Your task to perform on an android device: Search for Italian restaurants on Maps Image 0: 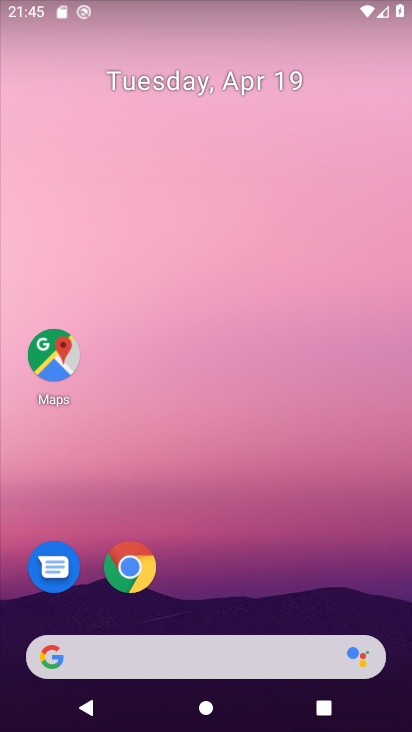
Step 0: drag from (222, 589) to (271, 27)
Your task to perform on an android device: Search for Italian restaurants on Maps Image 1: 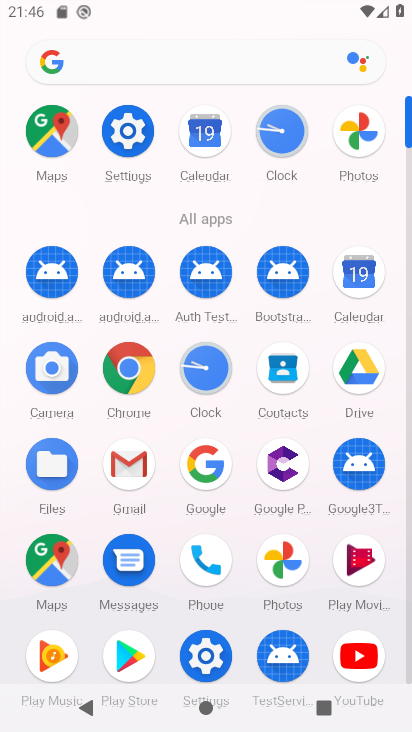
Step 1: click (41, 132)
Your task to perform on an android device: Search for Italian restaurants on Maps Image 2: 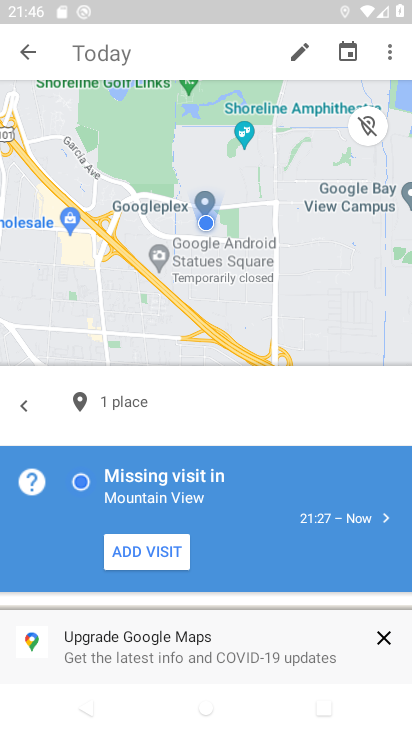
Step 2: click (30, 55)
Your task to perform on an android device: Search for Italian restaurants on Maps Image 3: 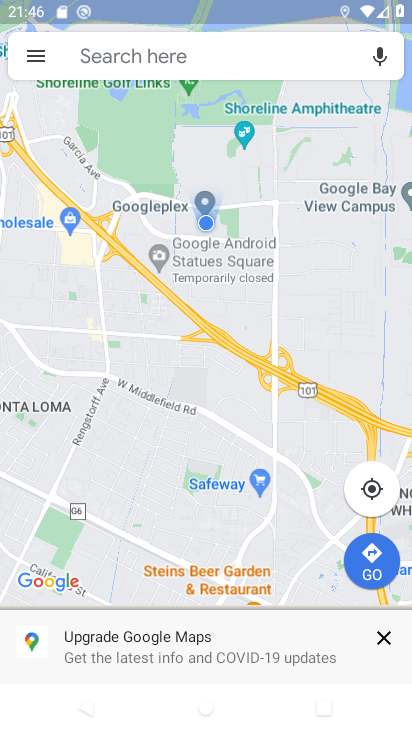
Step 3: click (116, 53)
Your task to perform on an android device: Search for Italian restaurants on Maps Image 4: 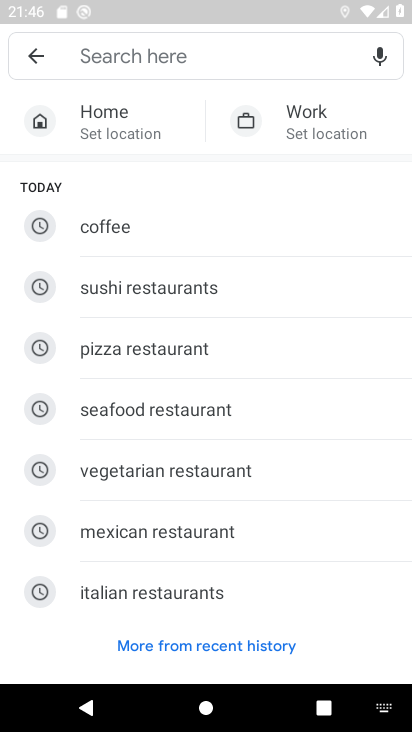
Step 4: type "italian restaurants"
Your task to perform on an android device: Search for Italian restaurants on Maps Image 5: 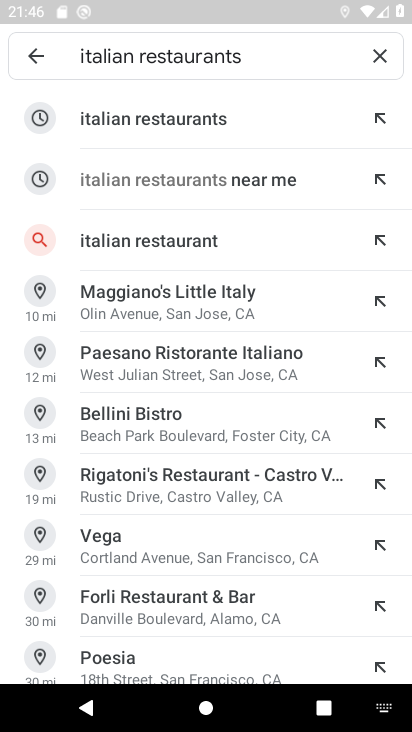
Step 5: click (219, 124)
Your task to perform on an android device: Search for Italian restaurants on Maps Image 6: 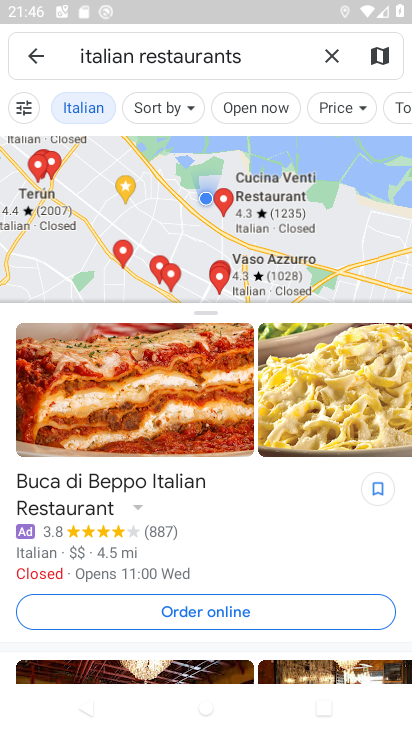
Step 6: task complete